Your task to perform on an android device: Open calendar and show me the first week of next month Image 0: 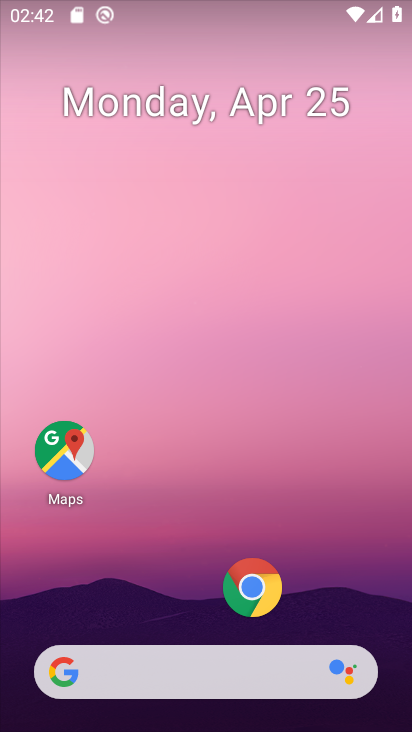
Step 0: drag from (199, 524) to (187, 69)
Your task to perform on an android device: Open calendar and show me the first week of next month Image 1: 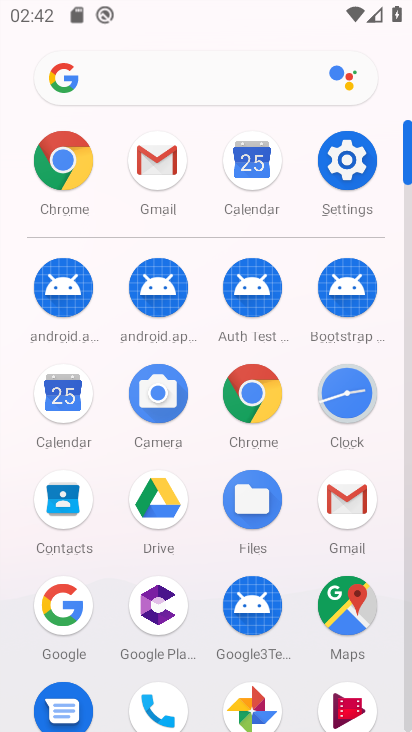
Step 1: click (63, 395)
Your task to perform on an android device: Open calendar and show me the first week of next month Image 2: 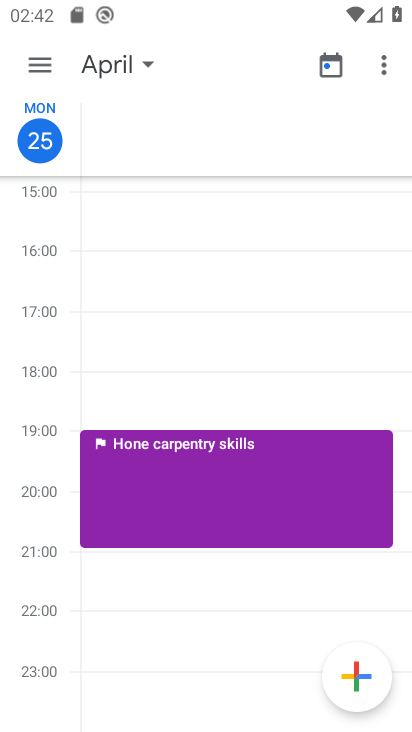
Step 2: click (41, 58)
Your task to perform on an android device: Open calendar and show me the first week of next month Image 3: 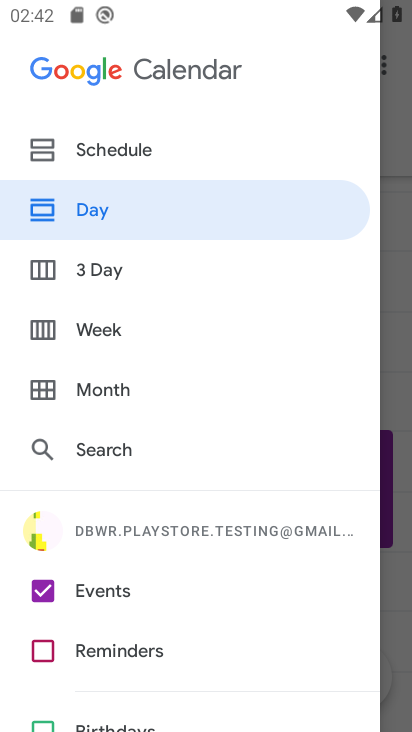
Step 3: click (73, 328)
Your task to perform on an android device: Open calendar and show me the first week of next month Image 4: 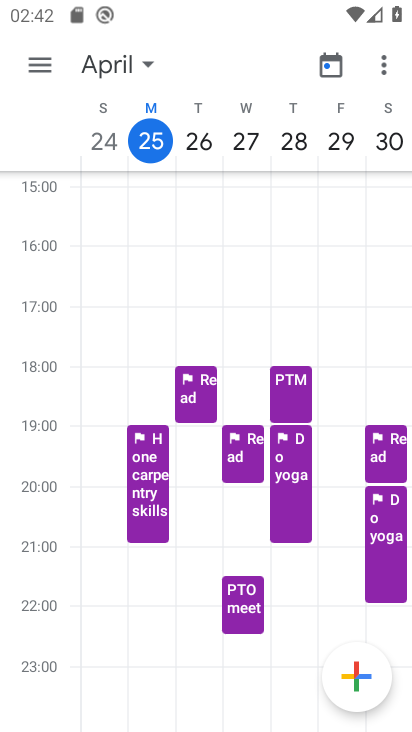
Step 4: drag from (362, 139) to (71, 143)
Your task to perform on an android device: Open calendar and show me the first week of next month Image 5: 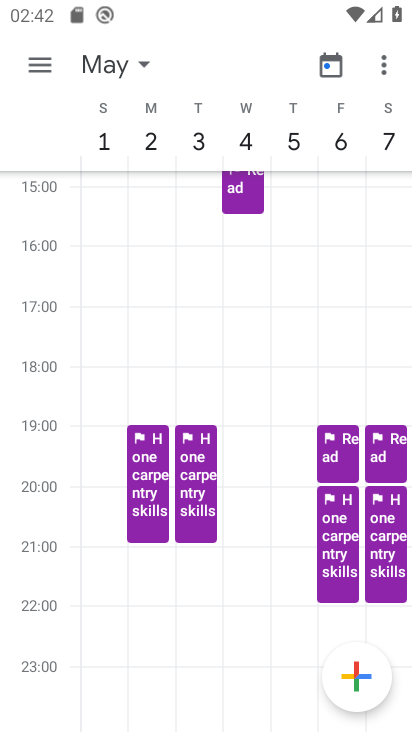
Step 5: click (100, 141)
Your task to perform on an android device: Open calendar and show me the first week of next month Image 6: 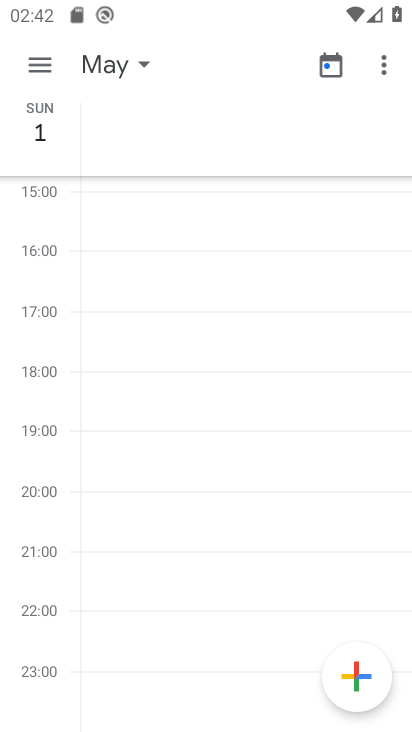
Step 6: click (61, 149)
Your task to perform on an android device: Open calendar and show me the first week of next month Image 7: 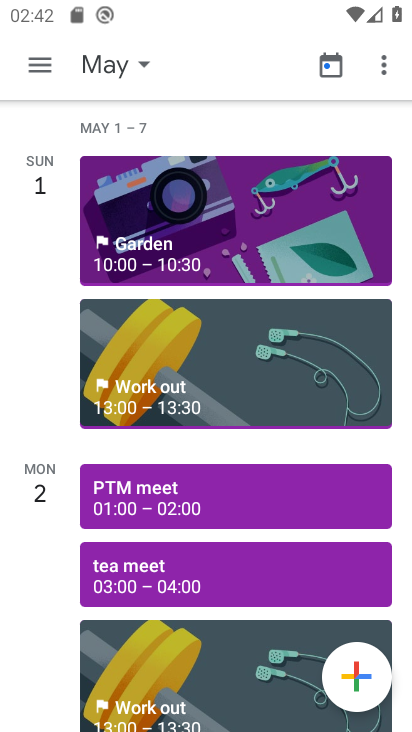
Step 7: drag from (45, 574) to (40, 148)
Your task to perform on an android device: Open calendar and show me the first week of next month Image 8: 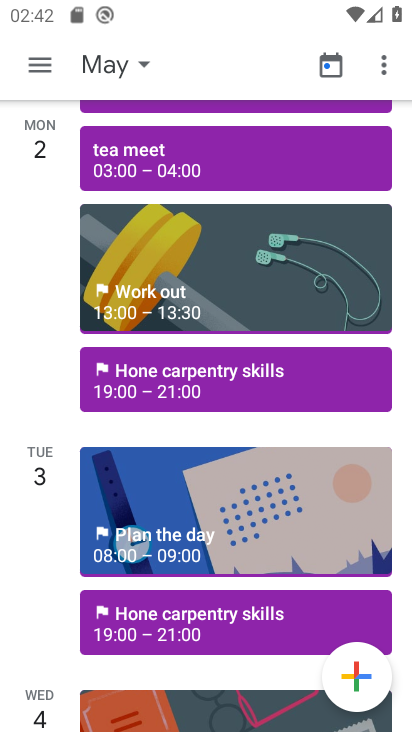
Step 8: drag from (48, 605) to (50, 154)
Your task to perform on an android device: Open calendar and show me the first week of next month Image 9: 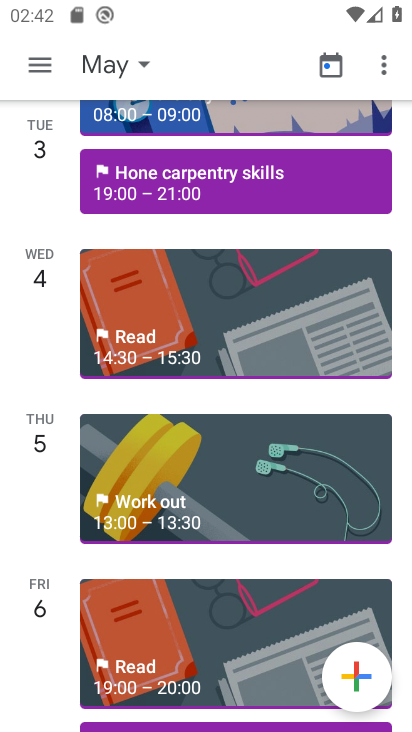
Step 9: drag from (52, 650) to (37, 307)
Your task to perform on an android device: Open calendar and show me the first week of next month Image 10: 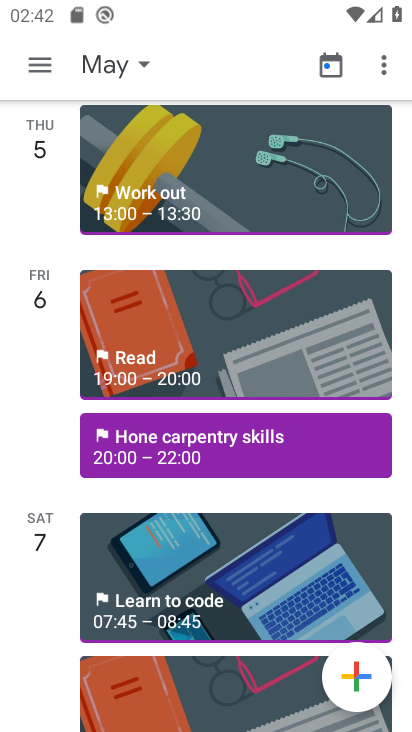
Step 10: drag from (53, 558) to (47, 350)
Your task to perform on an android device: Open calendar and show me the first week of next month Image 11: 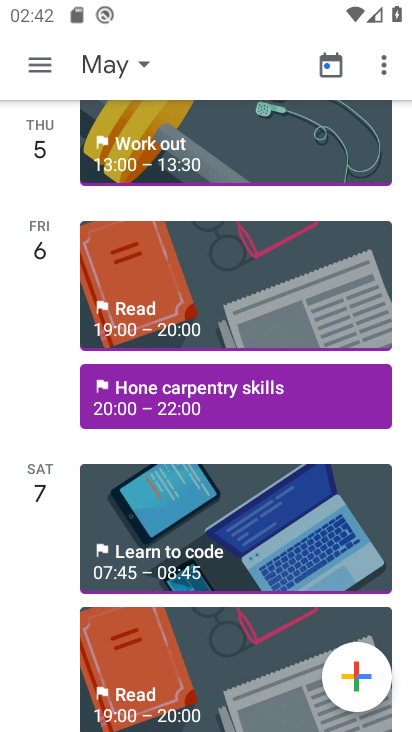
Step 11: click (46, 293)
Your task to perform on an android device: Open calendar and show me the first week of next month Image 12: 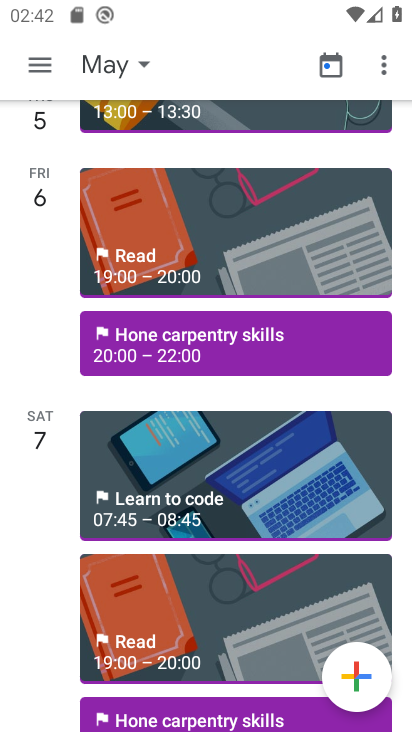
Step 12: task complete